Your task to perform on an android device: Go to Google maps Image 0: 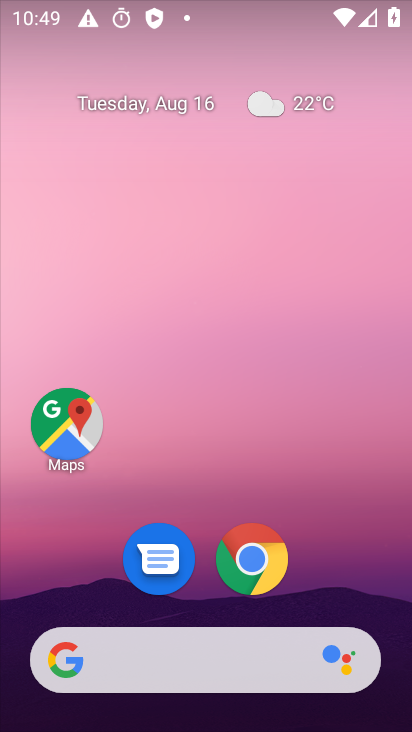
Step 0: click (60, 442)
Your task to perform on an android device: Go to Google maps Image 1: 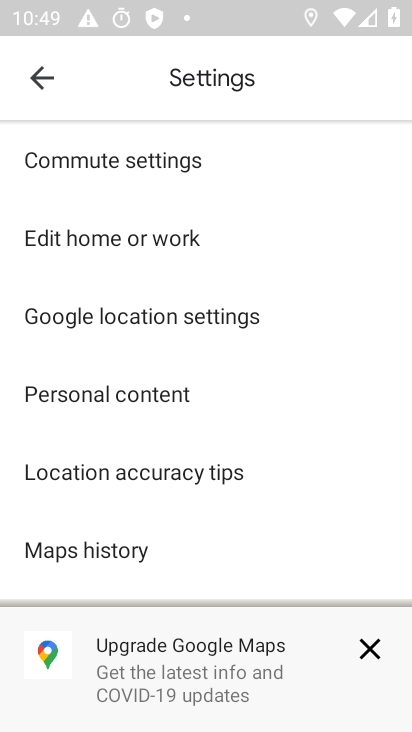
Step 1: click (38, 80)
Your task to perform on an android device: Go to Google maps Image 2: 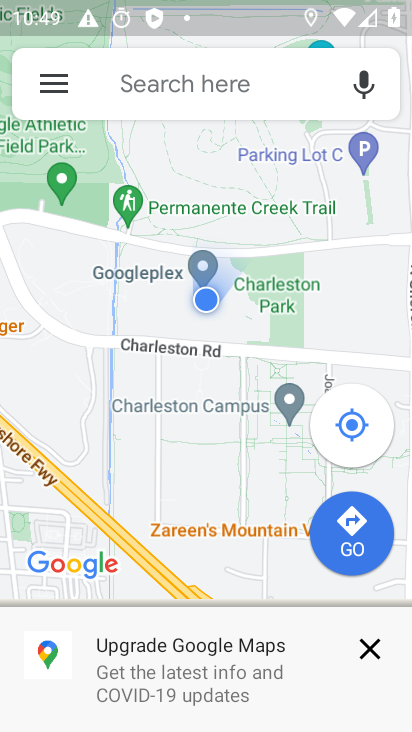
Step 2: task complete